Your task to perform on an android device: Add "logitech g933" to the cart on newegg Image 0: 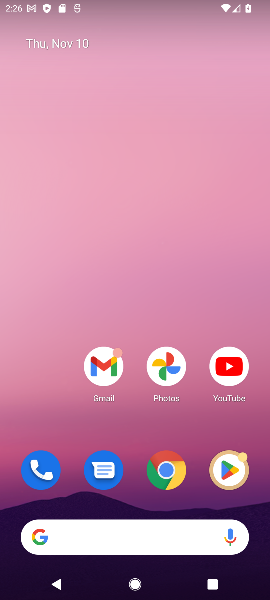
Step 0: click (167, 457)
Your task to perform on an android device: Add "logitech g933" to the cart on newegg Image 1: 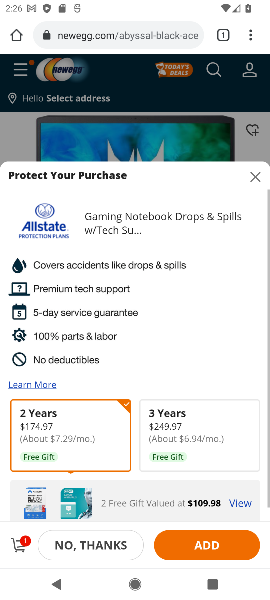
Step 1: click (251, 173)
Your task to perform on an android device: Add "logitech g933" to the cart on newegg Image 2: 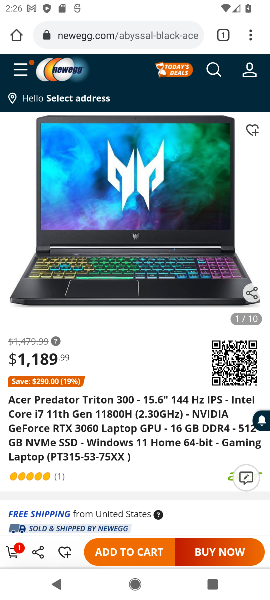
Step 2: click (212, 66)
Your task to perform on an android device: Add "logitech g933" to the cart on newegg Image 3: 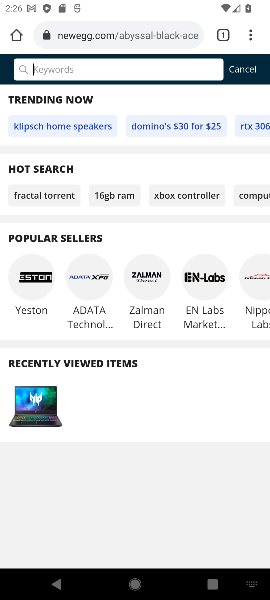
Step 3: type "logitech g933"
Your task to perform on an android device: Add "logitech g933" to the cart on newegg Image 4: 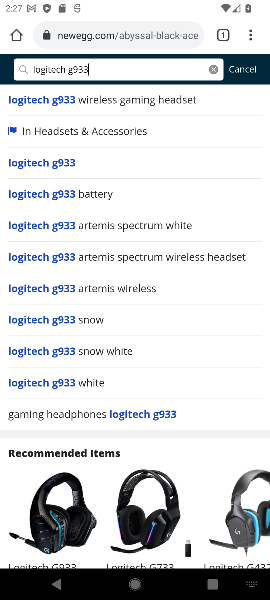
Step 4: click (59, 101)
Your task to perform on an android device: Add "logitech g933" to the cart on newegg Image 5: 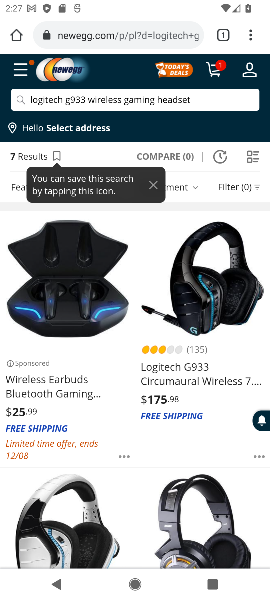
Step 5: click (182, 384)
Your task to perform on an android device: Add "logitech g933" to the cart on newegg Image 6: 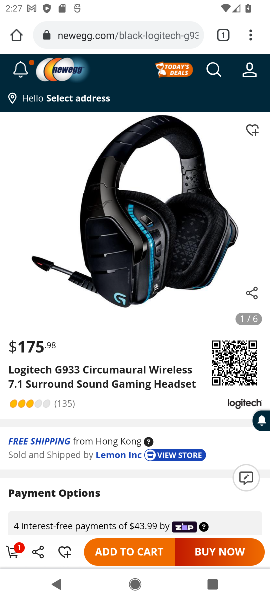
Step 6: click (106, 548)
Your task to perform on an android device: Add "logitech g933" to the cart on newegg Image 7: 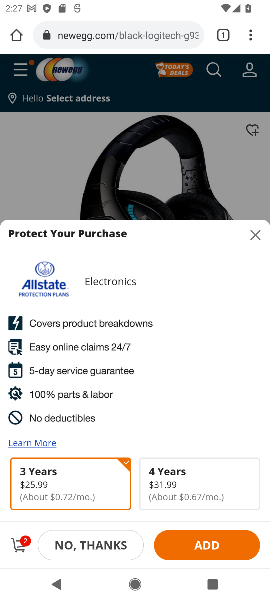
Step 7: task complete